Your task to perform on an android device: How do I get to the nearest T-Mobile Store? Image 0: 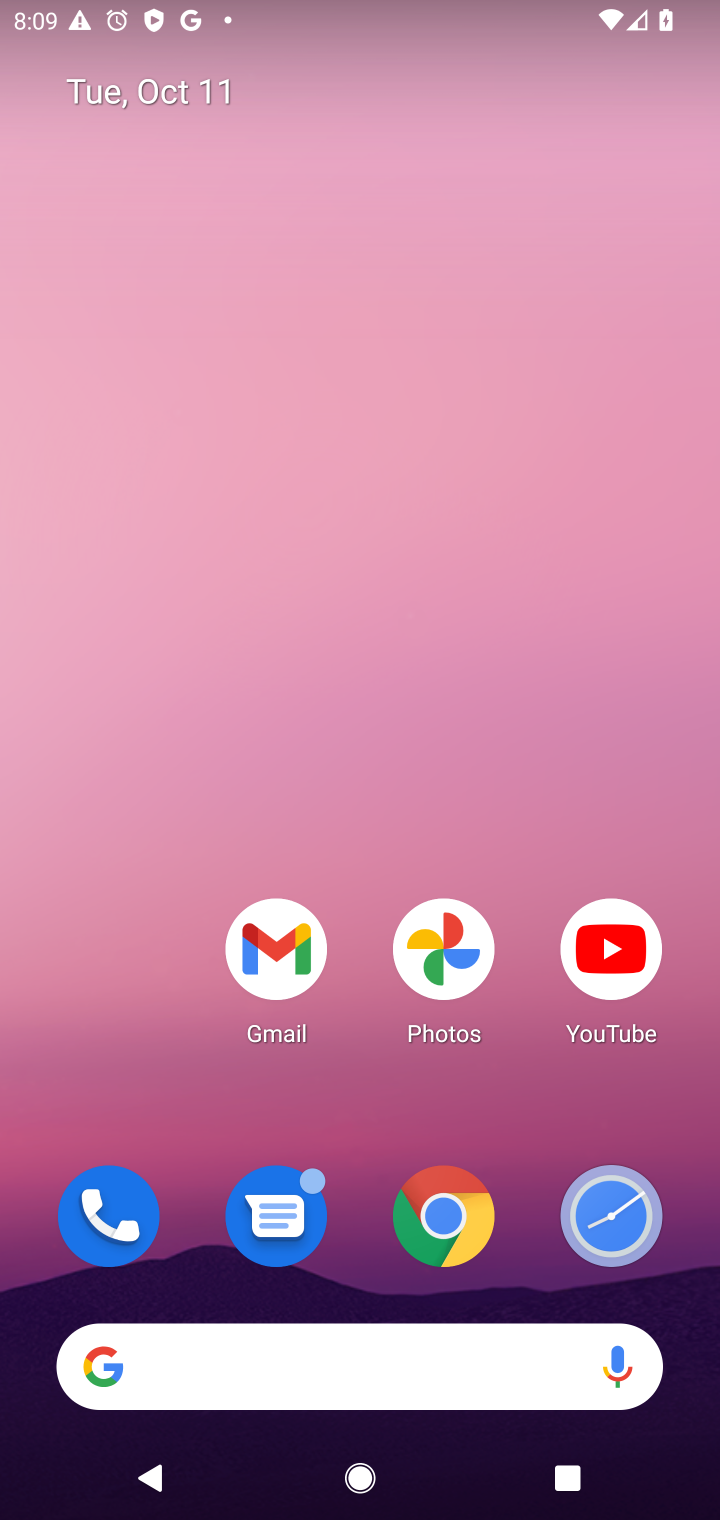
Step 0: click (443, 1251)
Your task to perform on an android device: How do I get to the nearest T-Mobile Store? Image 1: 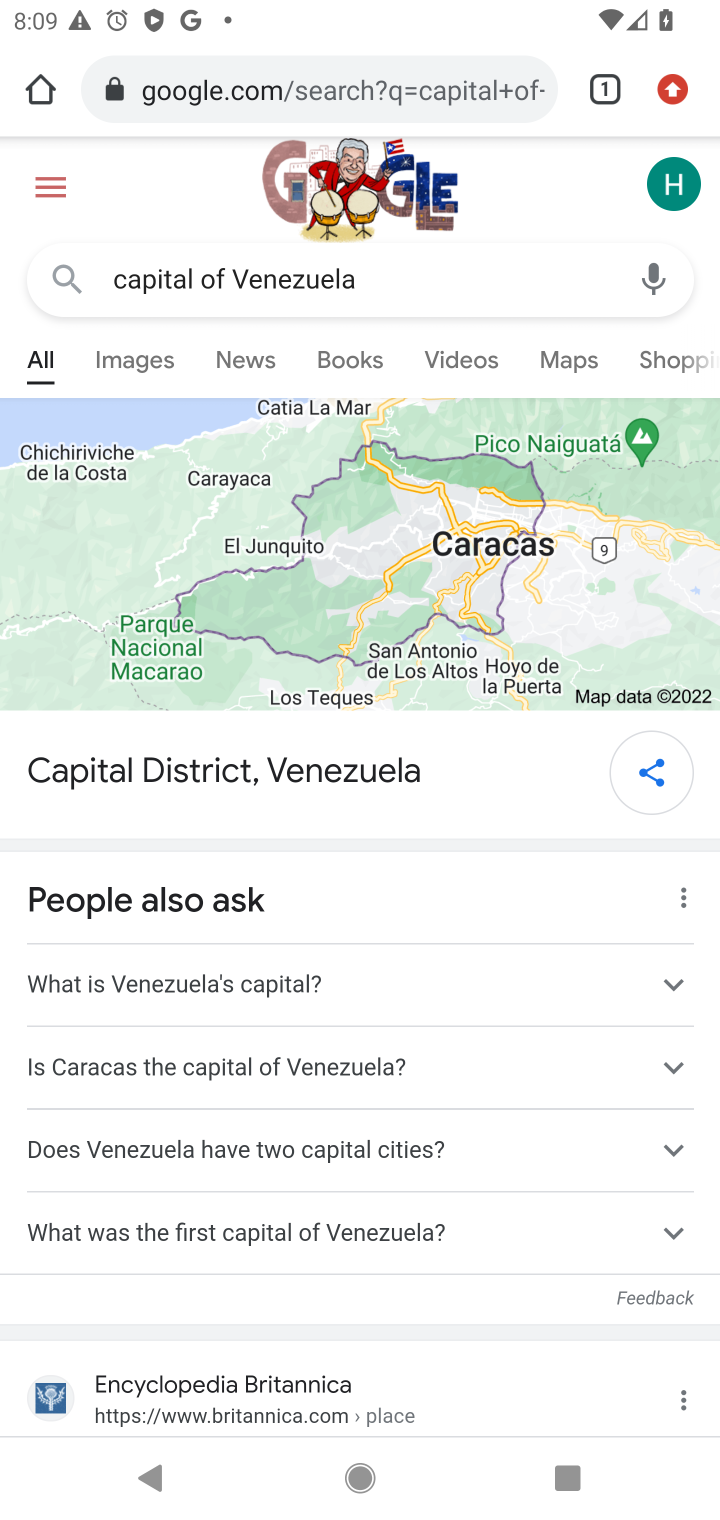
Step 1: click (402, 285)
Your task to perform on an android device: How do I get to the nearest T-Mobile Store? Image 2: 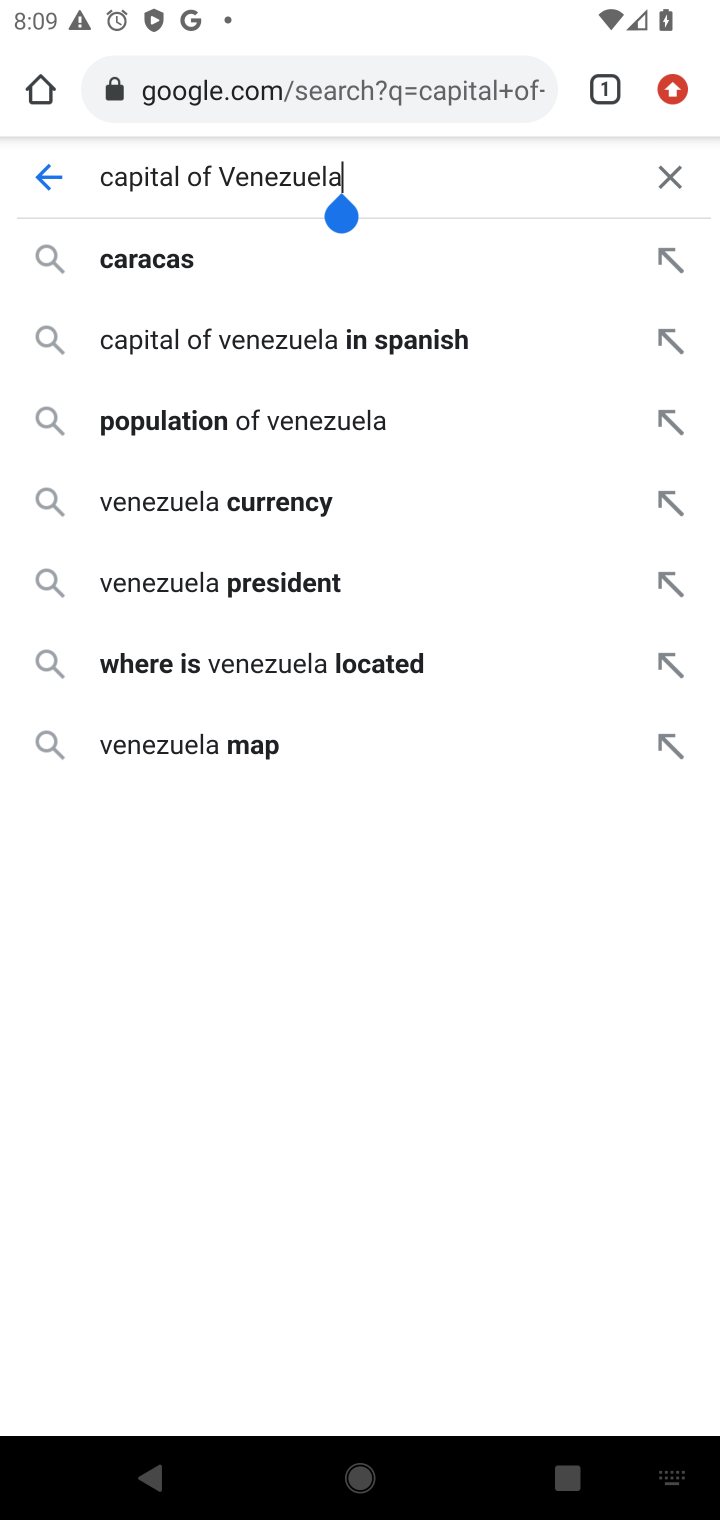
Step 2: click (664, 179)
Your task to perform on an android device: How do I get to the nearest T-Mobile Store? Image 3: 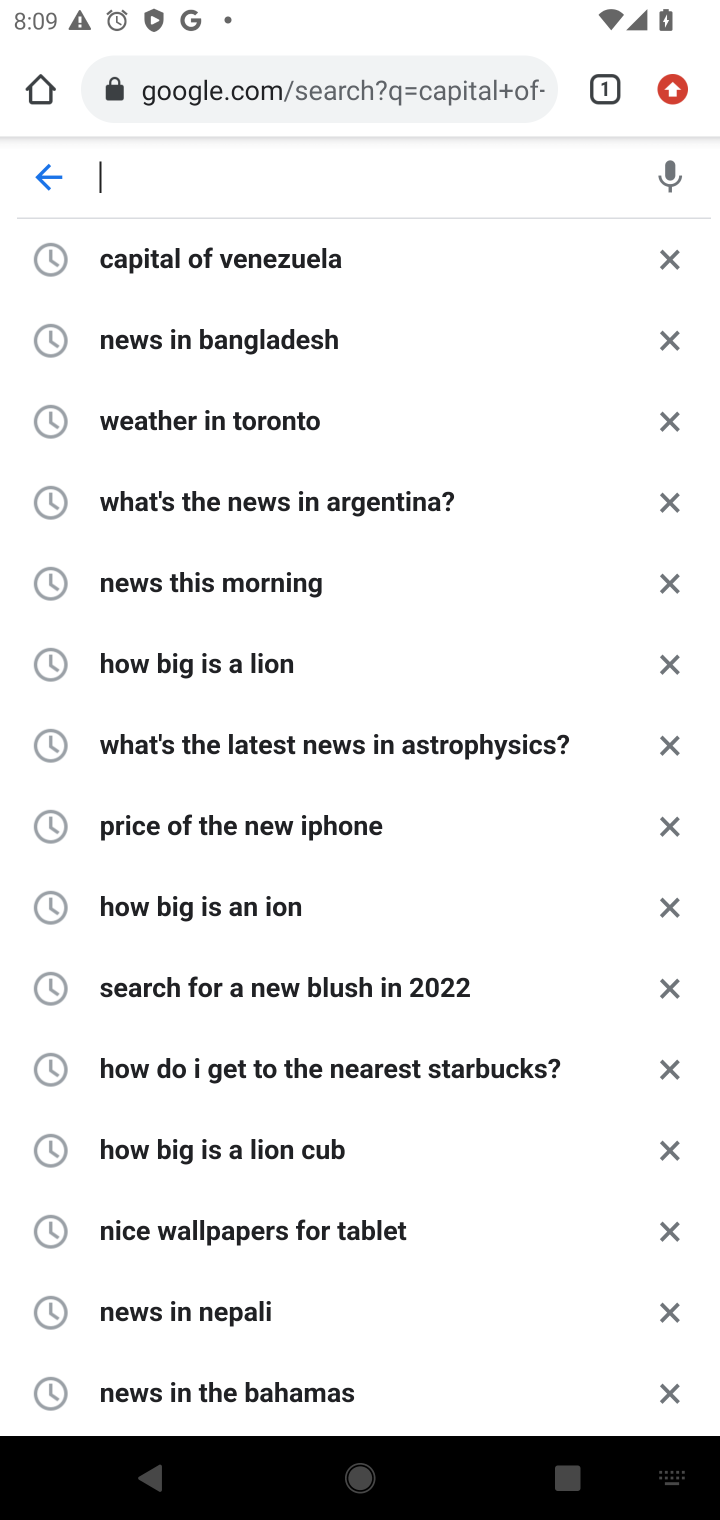
Step 3: type "How do I get to the nearest T-Mobile Store?"
Your task to perform on an android device: How do I get to the nearest T-Mobile Store? Image 4: 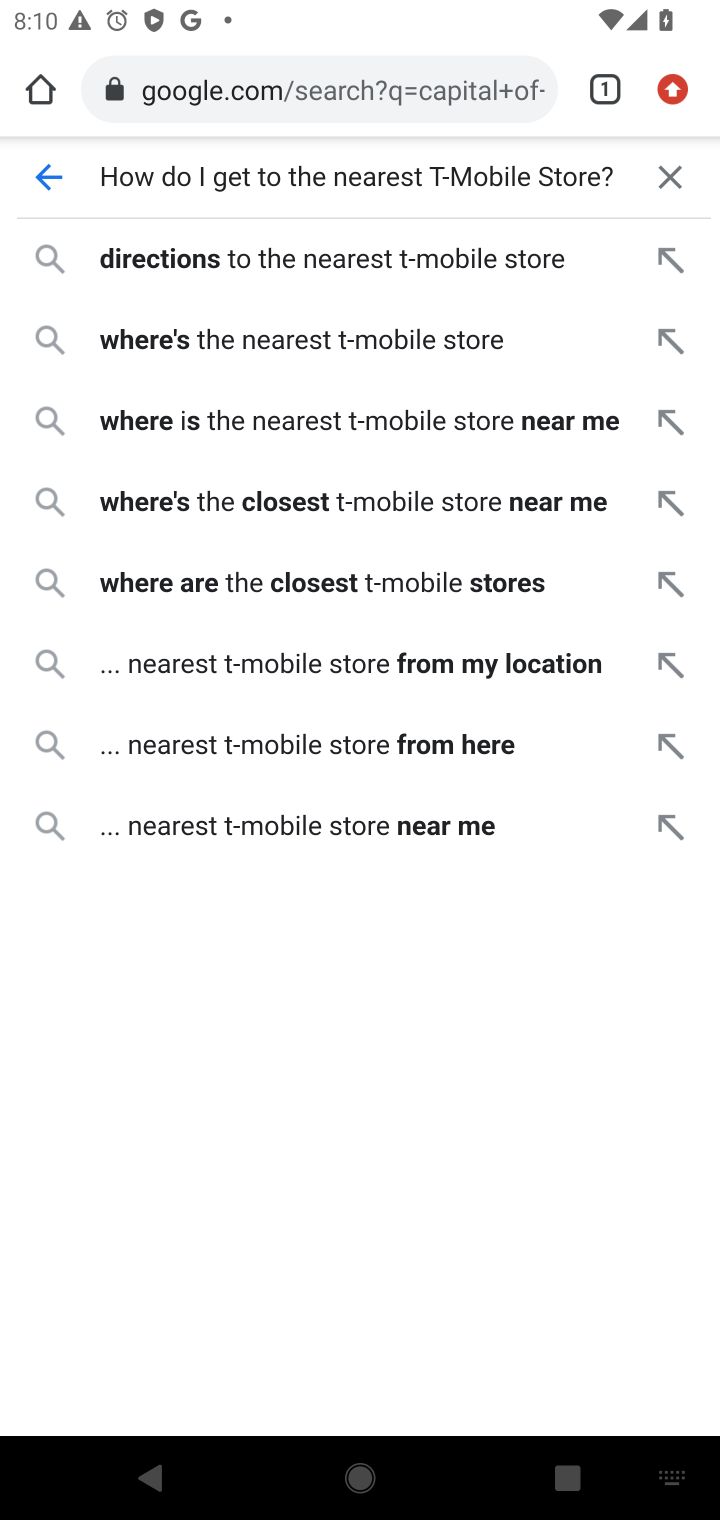
Step 4: press enter
Your task to perform on an android device: How do I get to the nearest T-Mobile Store? Image 5: 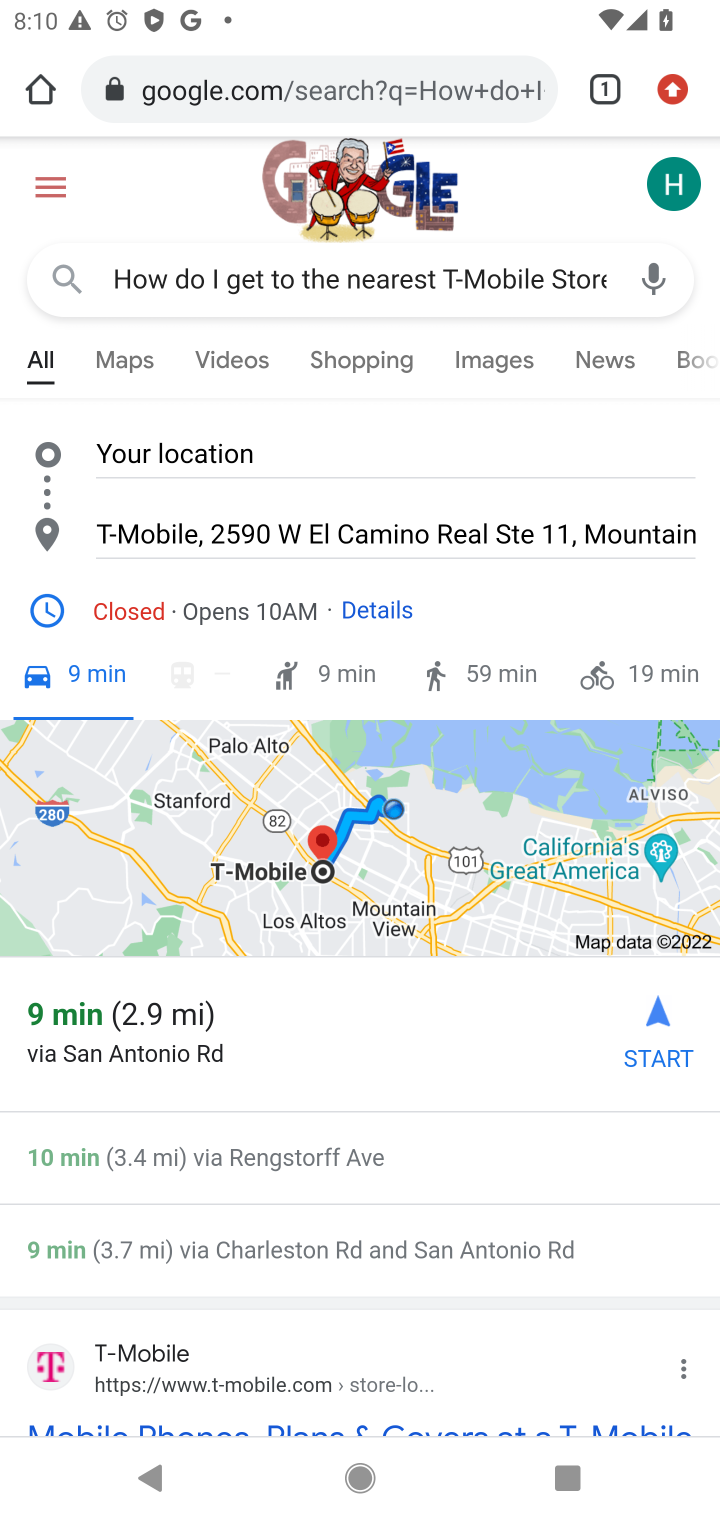
Step 5: task complete